Your task to perform on an android device: turn pop-ups off in chrome Image 0: 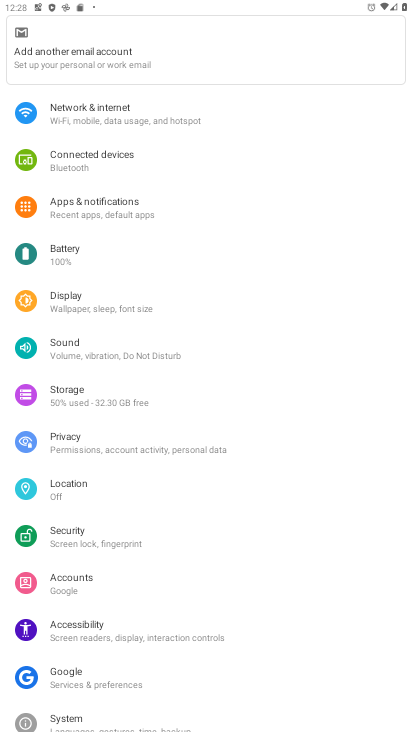
Step 0: press home button
Your task to perform on an android device: turn pop-ups off in chrome Image 1: 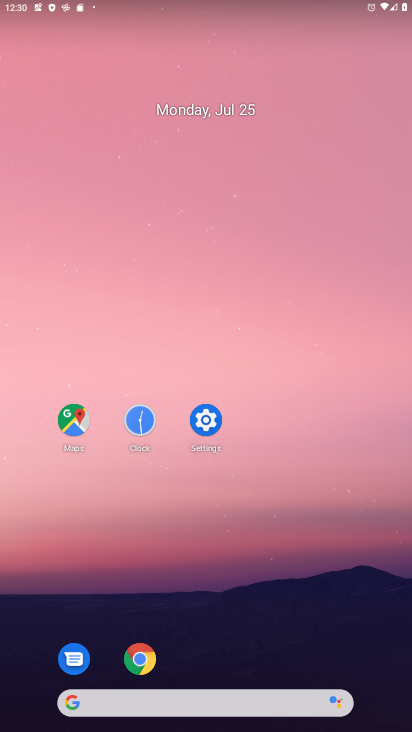
Step 1: click (138, 663)
Your task to perform on an android device: turn pop-ups off in chrome Image 2: 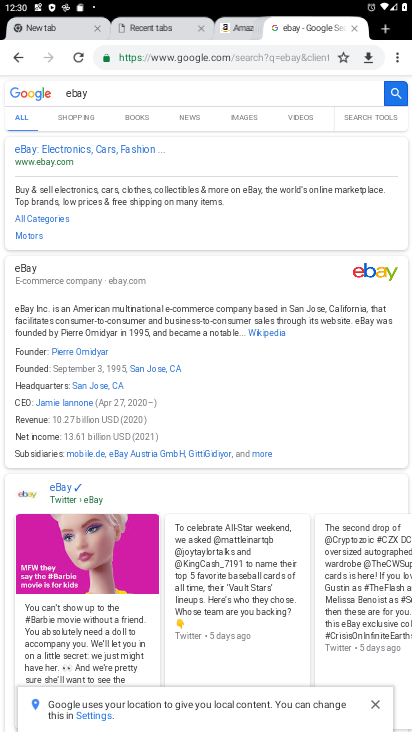
Step 2: click (397, 58)
Your task to perform on an android device: turn pop-ups off in chrome Image 3: 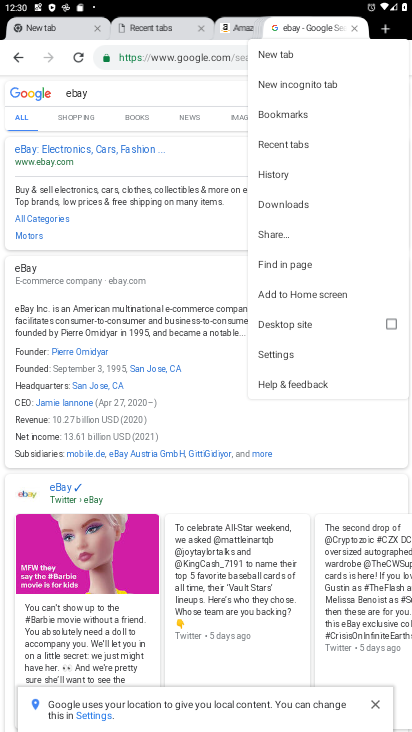
Step 3: click (279, 349)
Your task to perform on an android device: turn pop-ups off in chrome Image 4: 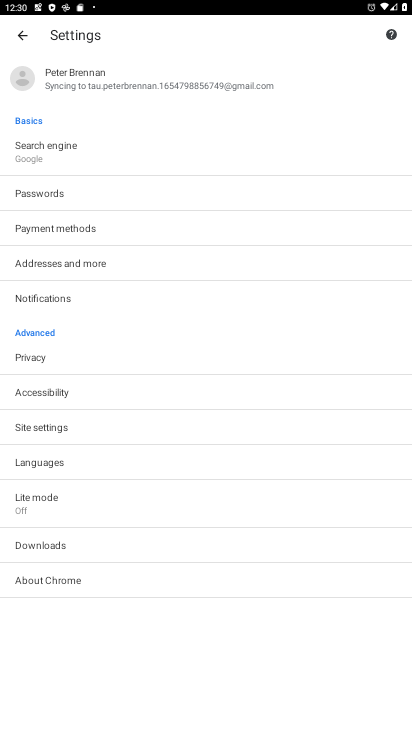
Step 4: click (51, 424)
Your task to perform on an android device: turn pop-ups off in chrome Image 5: 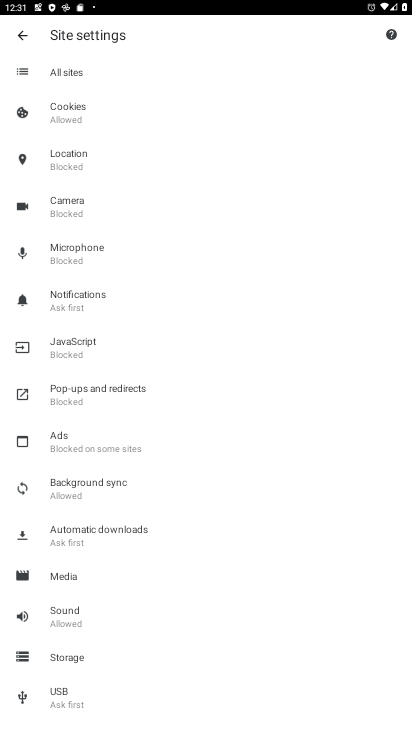
Step 5: click (67, 385)
Your task to perform on an android device: turn pop-ups off in chrome Image 6: 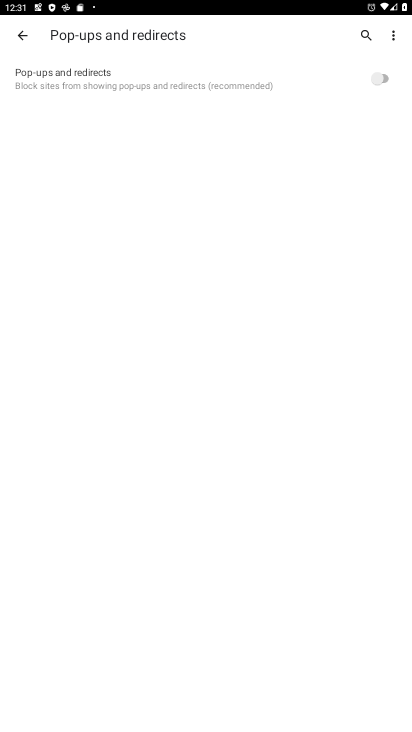
Step 6: task complete